Your task to perform on an android device: Search for sushi restaurants on Maps Image 0: 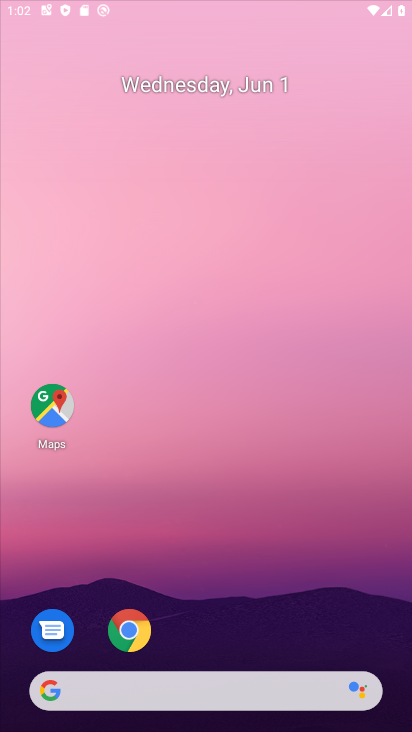
Step 0: press home button
Your task to perform on an android device: Search for sushi restaurants on Maps Image 1: 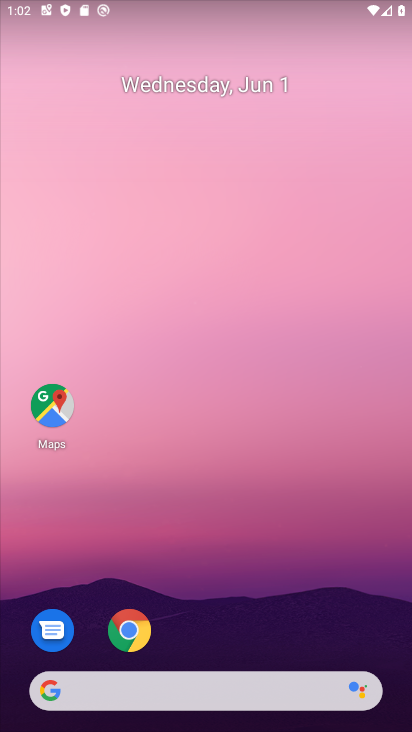
Step 1: click (45, 413)
Your task to perform on an android device: Search for sushi restaurants on Maps Image 2: 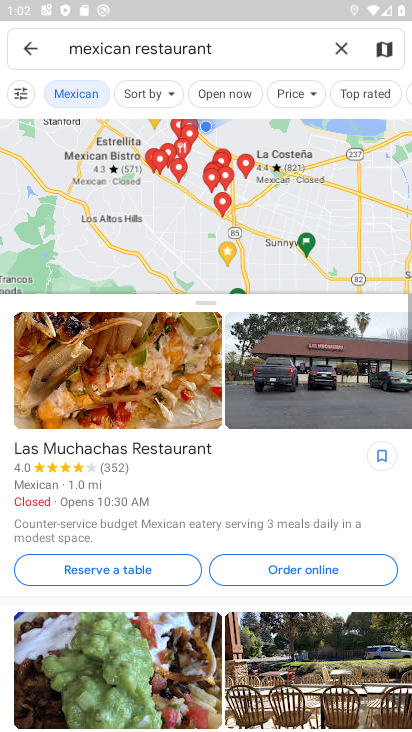
Step 2: click (343, 50)
Your task to perform on an android device: Search for sushi restaurants on Maps Image 3: 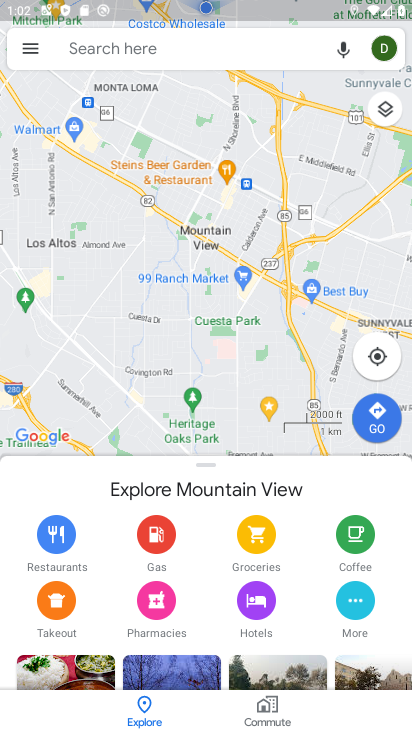
Step 3: click (163, 46)
Your task to perform on an android device: Search for sushi restaurants on Maps Image 4: 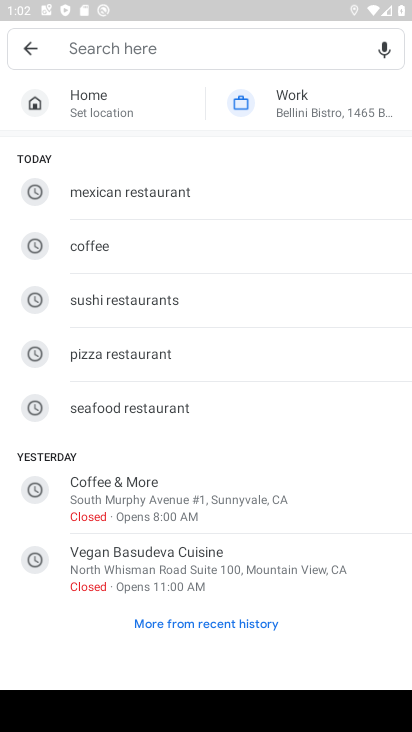
Step 4: click (127, 301)
Your task to perform on an android device: Search for sushi restaurants on Maps Image 5: 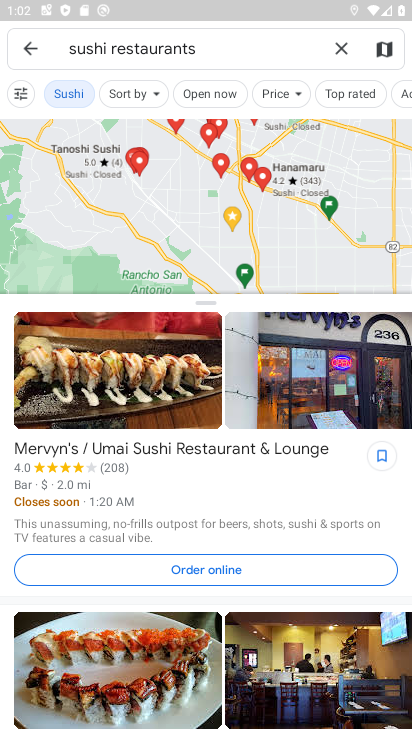
Step 5: task complete